Your task to perform on an android device: check out phone information Image 0: 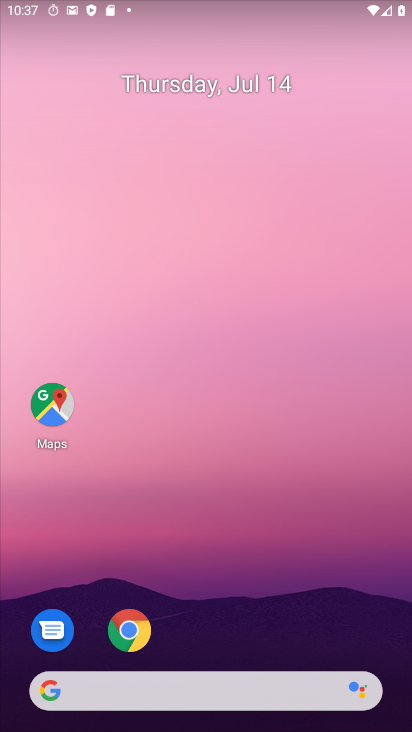
Step 0: drag from (292, 638) to (248, 144)
Your task to perform on an android device: check out phone information Image 1: 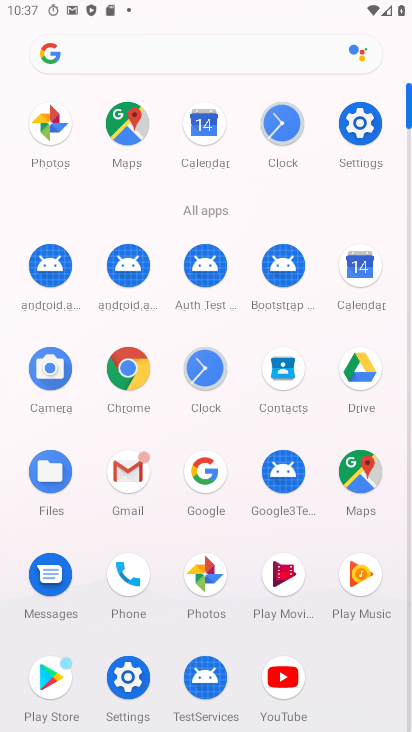
Step 1: click (140, 689)
Your task to perform on an android device: check out phone information Image 2: 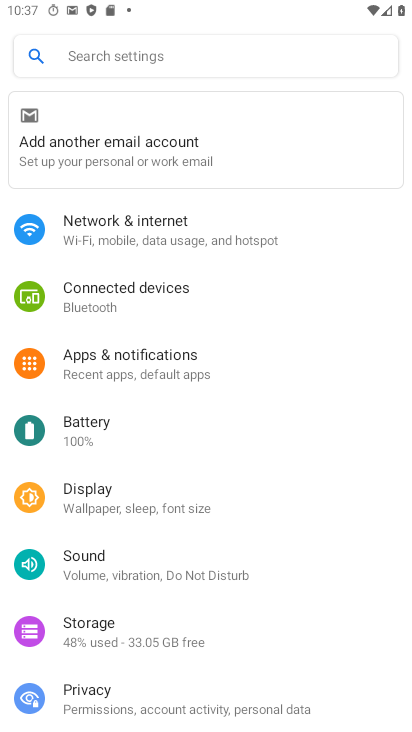
Step 2: drag from (128, 693) to (137, 264)
Your task to perform on an android device: check out phone information Image 3: 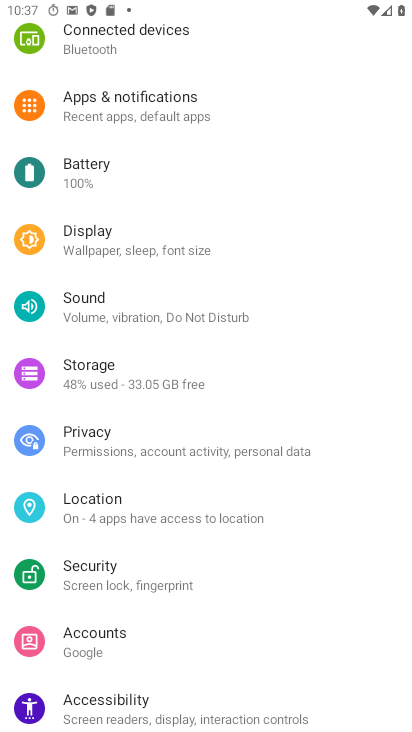
Step 3: drag from (138, 597) to (166, 250)
Your task to perform on an android device: check out phone information Image 4: 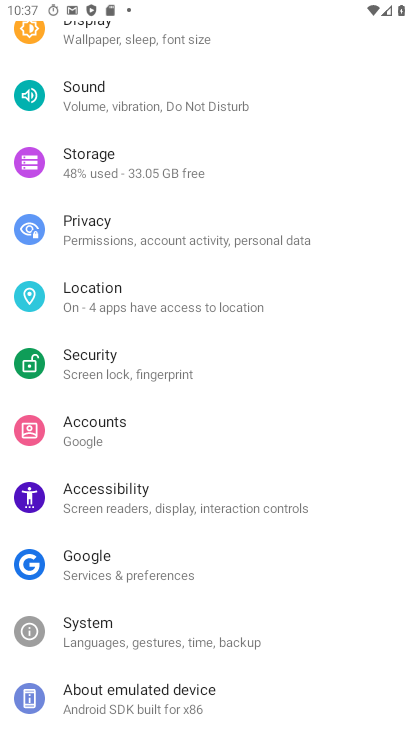
Step 4: click (133, 700)
Your task to perform on an android device: check out phone information Image 5: 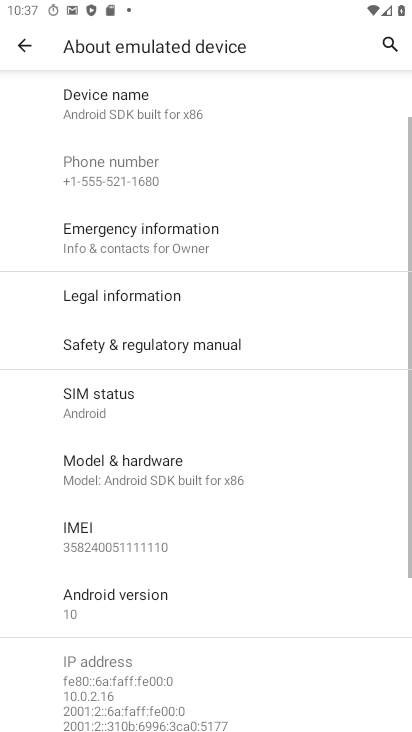
Step 5: task complete